Your task to perform on an android device: turn off notifications settings in the gmail app Image 0: 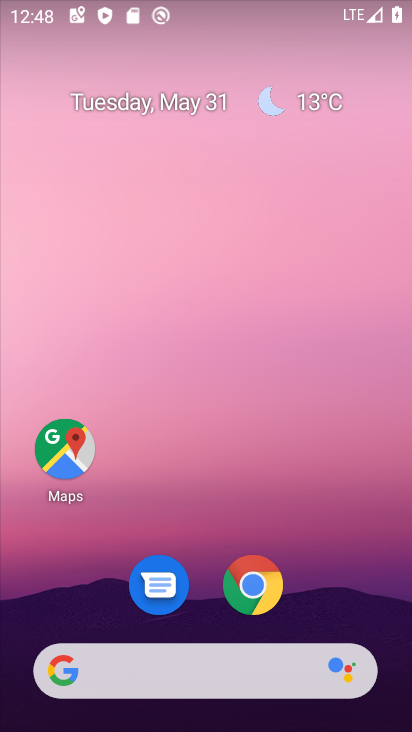
Step 0: drag from (204, 500) to (245, 49)
Your task to perform on an android device: turn off notifications settings in the gmail app Image 1: 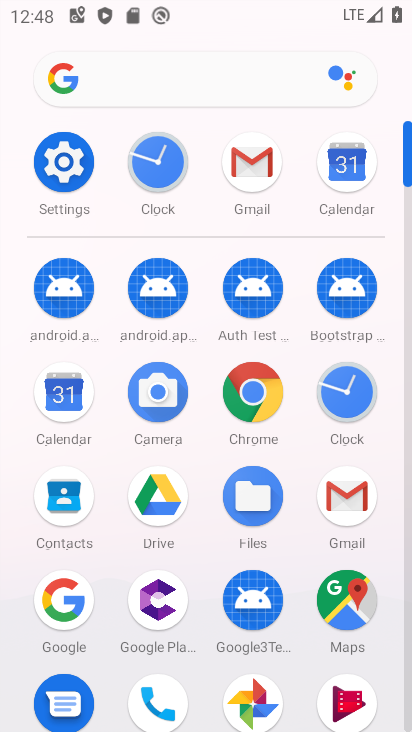
Step 1: click (251, 165)
Your task to perform on an android device: turn off notifications settings in the gmail app Image 2: 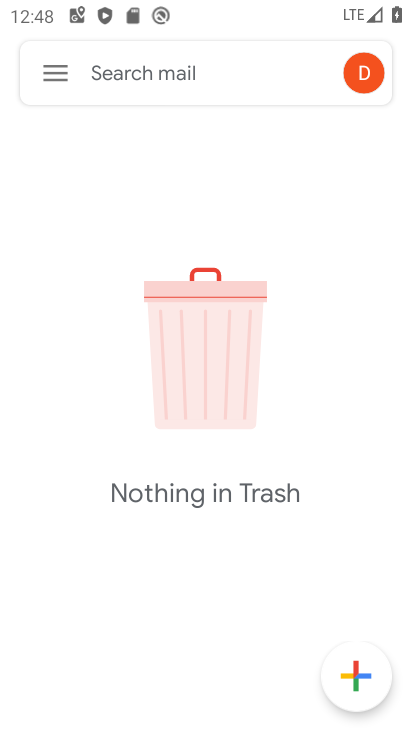
Step 2: click (47, 63)
Your task to perform on an android device: turn off notifications settings in the gmail app Image 3: 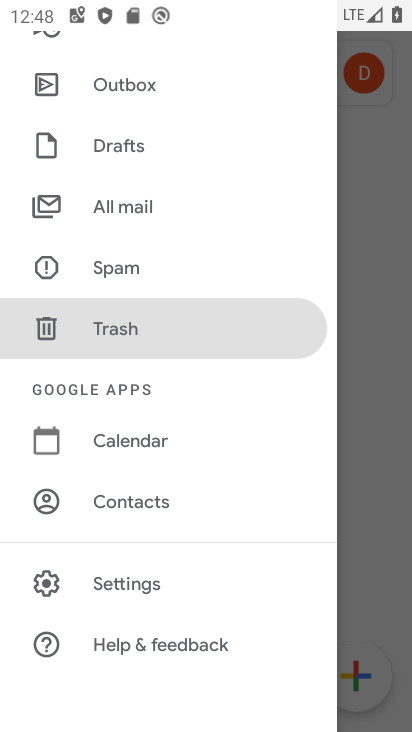
Step 3: click (129, 576)
Your task to perform on an android device: turn off notifications settings in the gmail app Image 4: 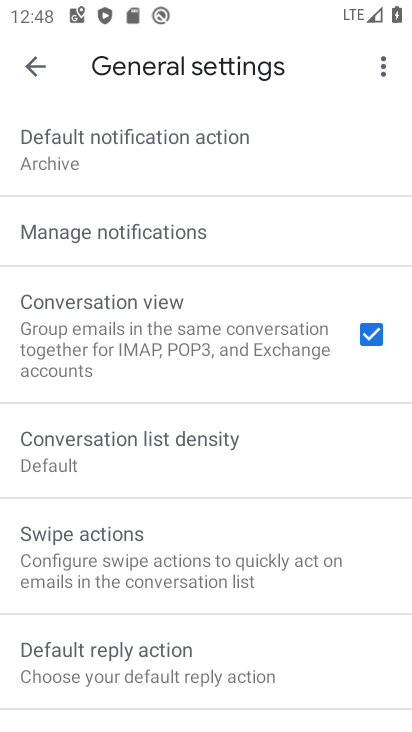
Step 4: click (240, 234)
Your task to perform on an android device: turn off notifications settings in the gmail app Image 5: 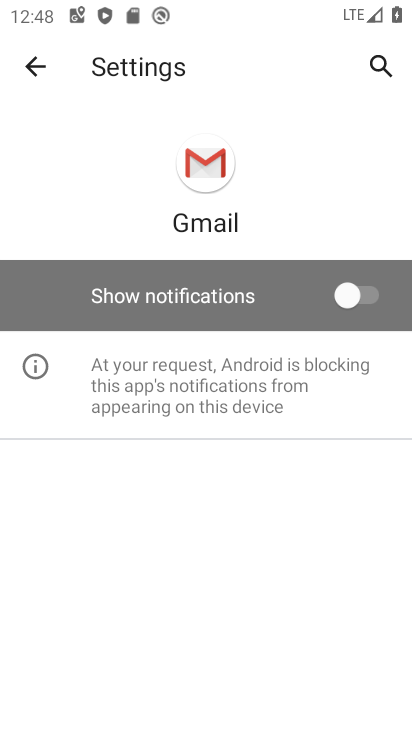
Step 5: task complete